Your task to perform on an android device: toggle airplane mode Image 0: 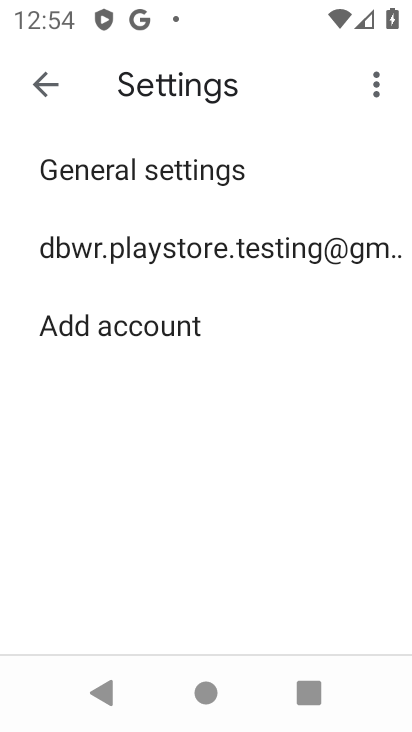
Step 0: press home button
Your task to perform on an android device: toggle airplane mode Image 1: 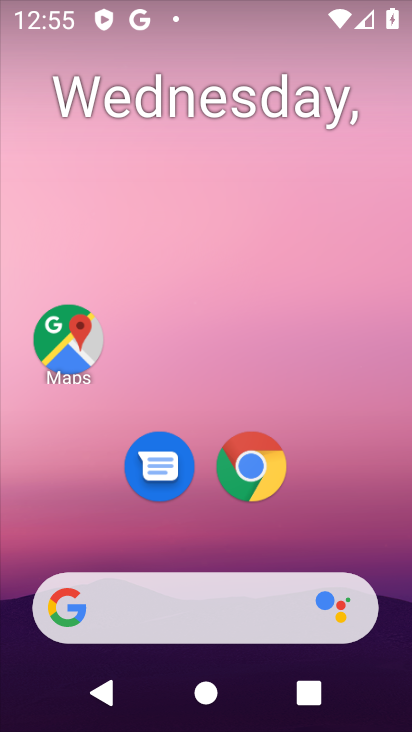
Step 1: drag from (345, 488) to (346, 344)
Your task to perform on an android device: toggle airplane mode Image 2: 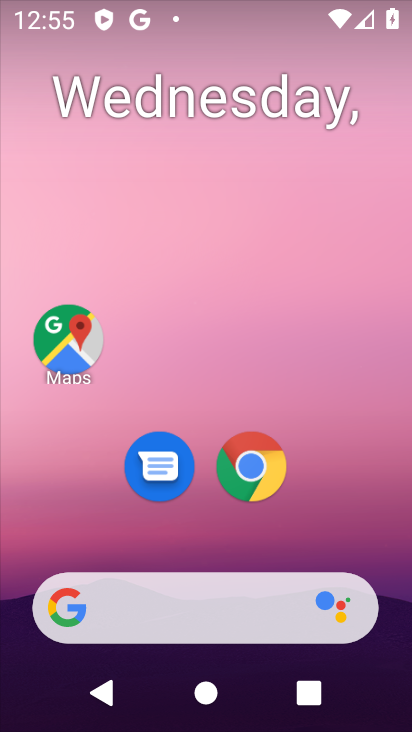
Step 2: drag from (354, 523) to (304, 132)
Your task to perform on an android device: toggle airplane mode Image 3: 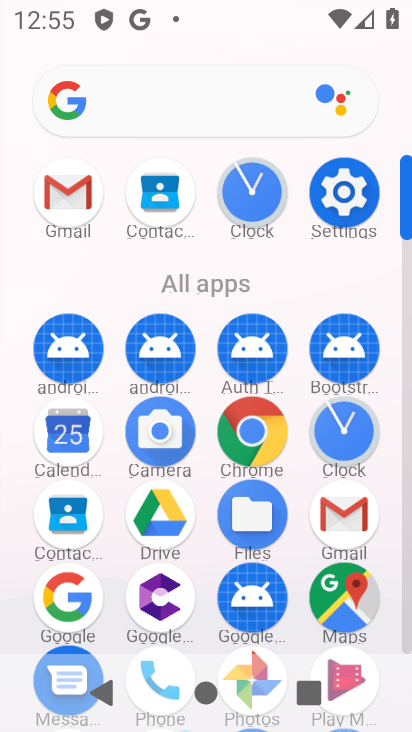
Step 3: click (362, 192)
Your task to perform on an android device: toggle airplane mode Image 4: 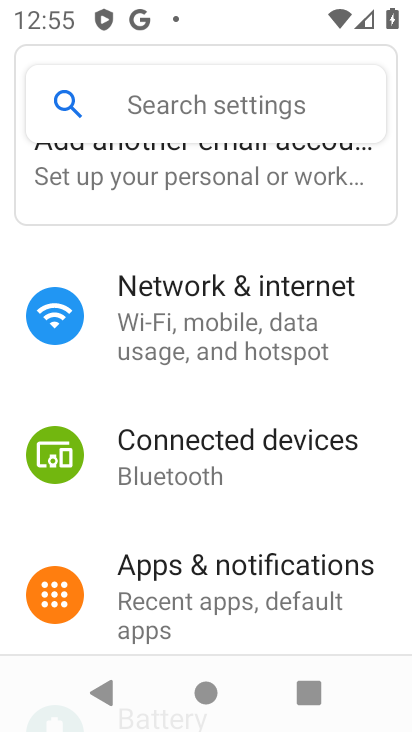
Step 4: click (270, 331)
Your task to perform on an android device: toggle airplane mode Image 5: 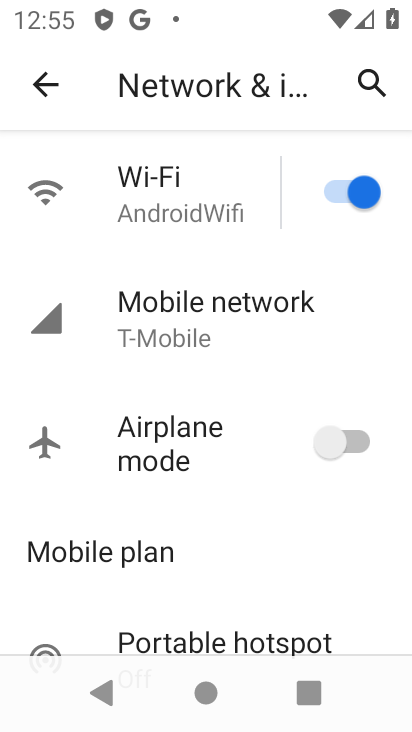
Step 5: click (353, 471)
Your task to perform on an android device: toggle airplane mode Image 6: 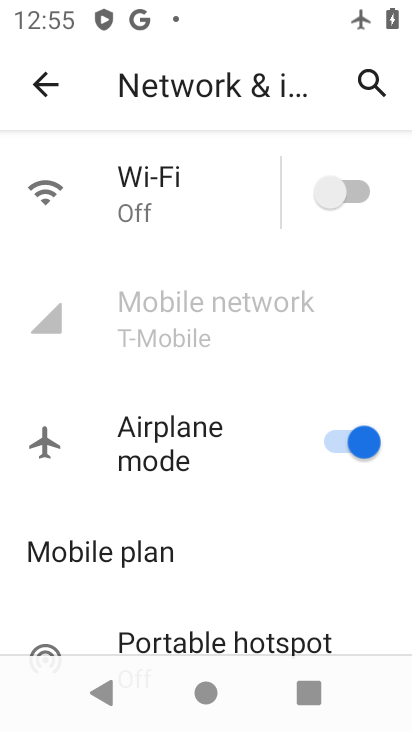
Step 6: task complete